Your task to perform on an android device: Empty the shopping cart on newegg. Search for razer huntsman on newegg, select the first entry, and add it to the cart. Image 0: 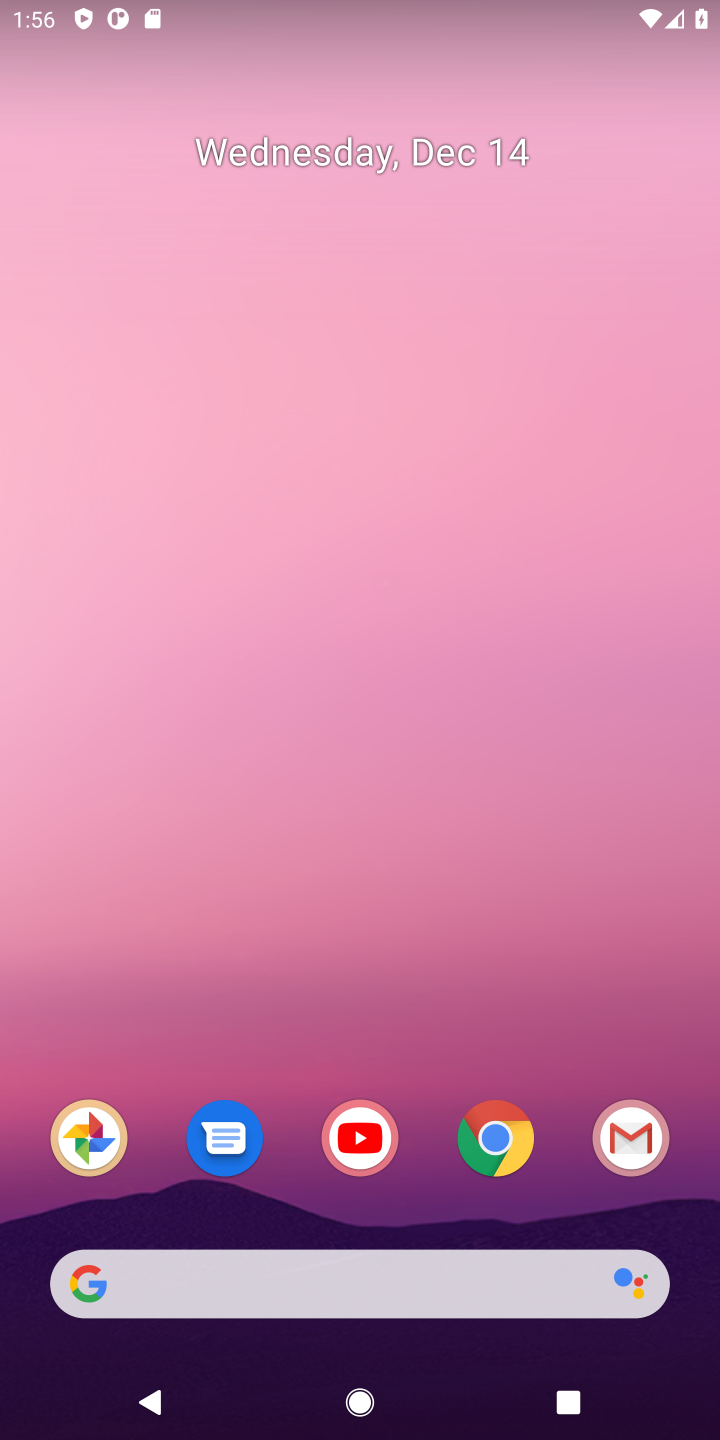
Step 0: click (493, 1147)
Your task to perform on an android device: Empty the shopping cart on newegg. Search for razer huntsman on newegg, select the first entry, and add it to the cart. Image 1: 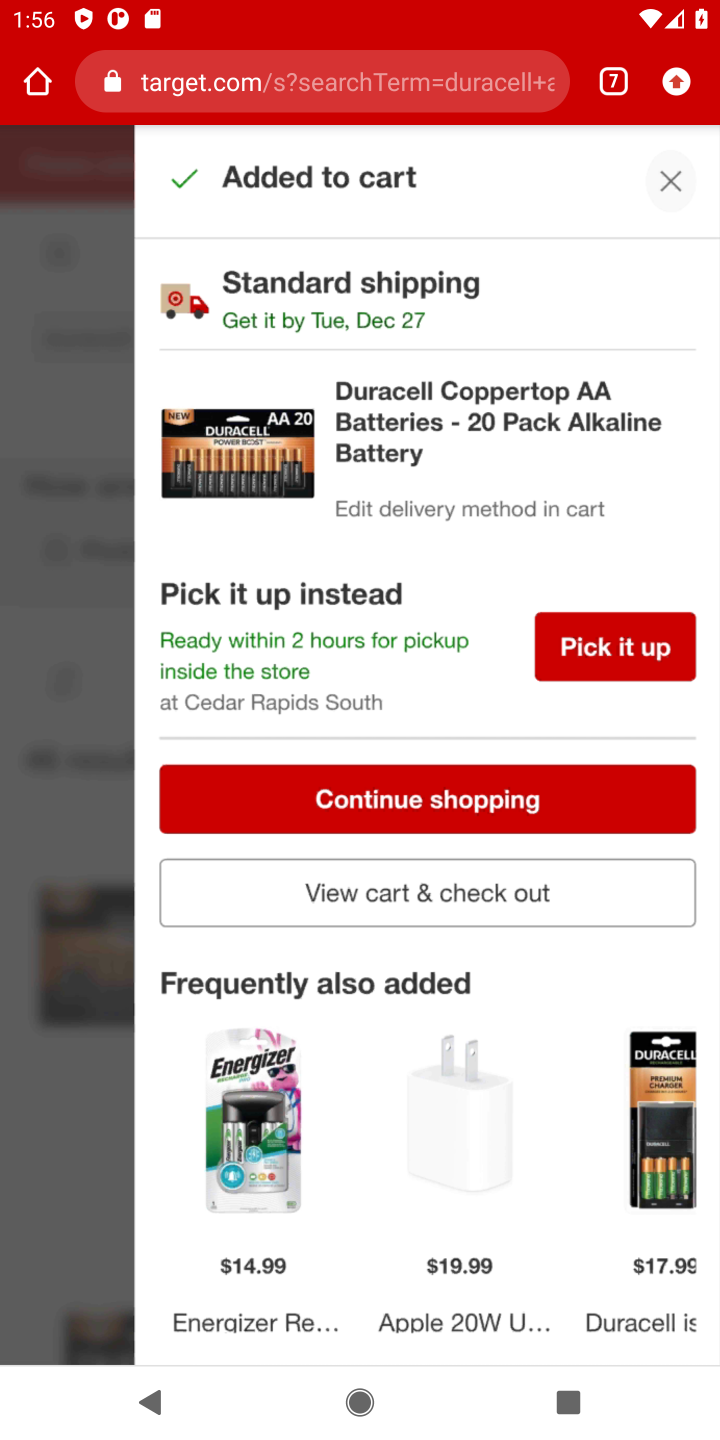
Step 1: click (604, 76)
Your task to perform on an android device: Empty the shopping cart on newegg. Search for razer huntsman on newegg, select the first entry, and add it to the cart. Image 2: 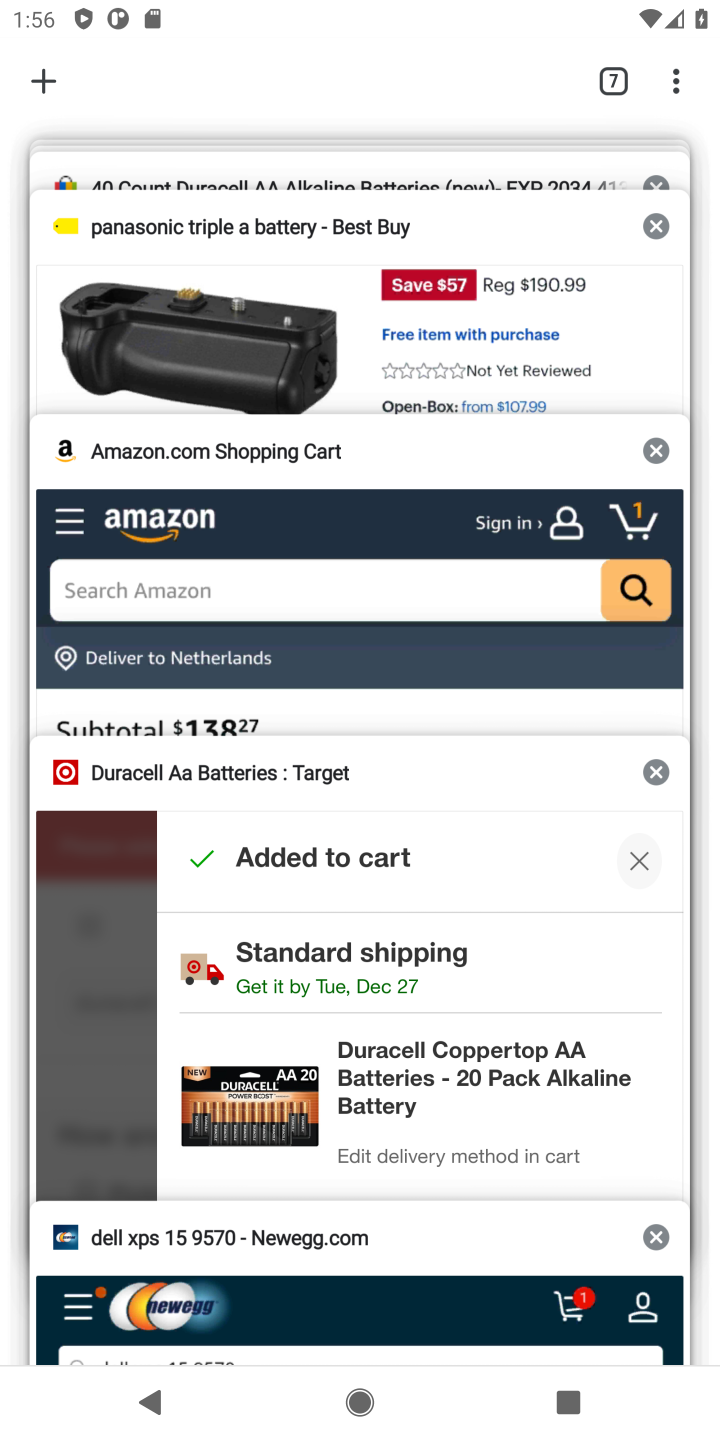
Step 2: drag from (274, 166) to (330, 790)
Your task to perform on an android device: Empty the shopping cart on newegg. Search for razer huntsman on newegg, select the first entry, and add it to the cart. Image 3: 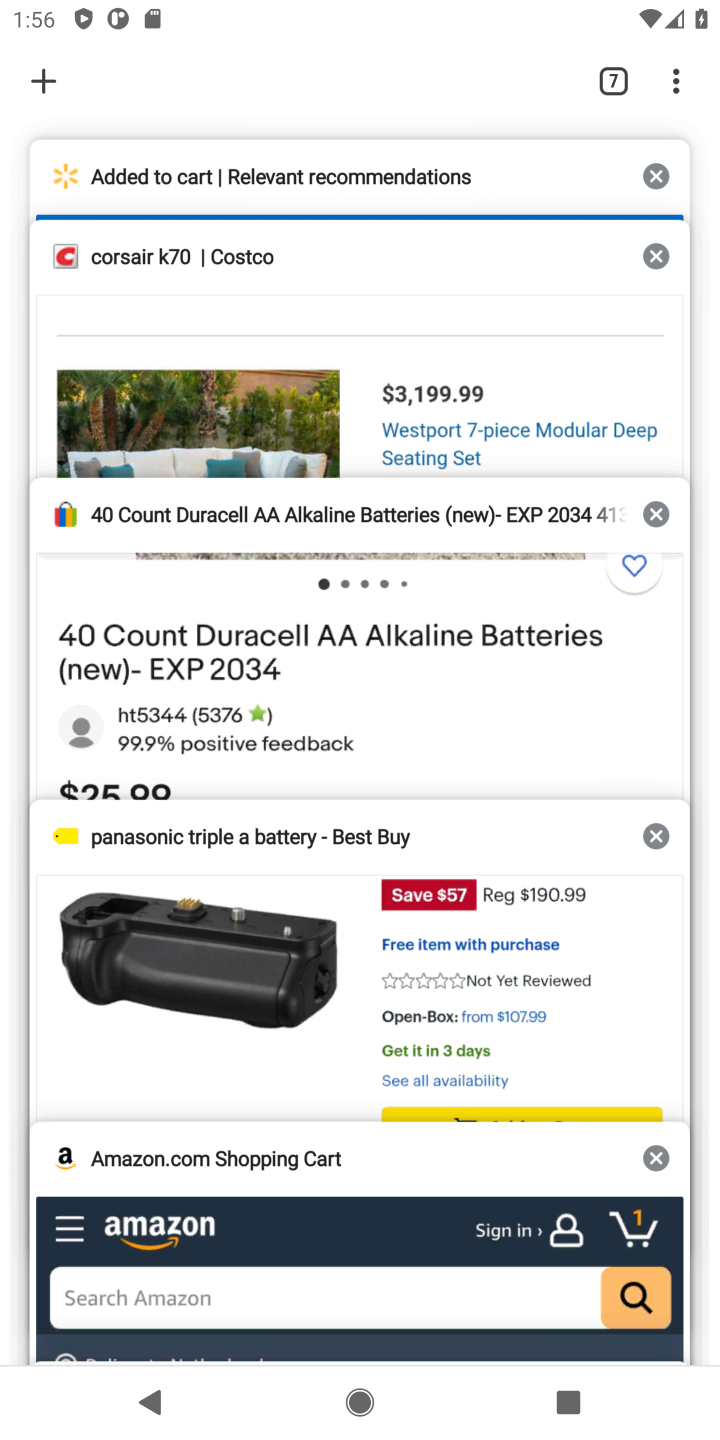
Step 3: drag from (348, 1090) to (384, 573)
Your task to perform on an android device: Empty the shopping cart on newegg. Search for razer huntsman on newegg, select the first entry, and add it to the cart. Image 4: 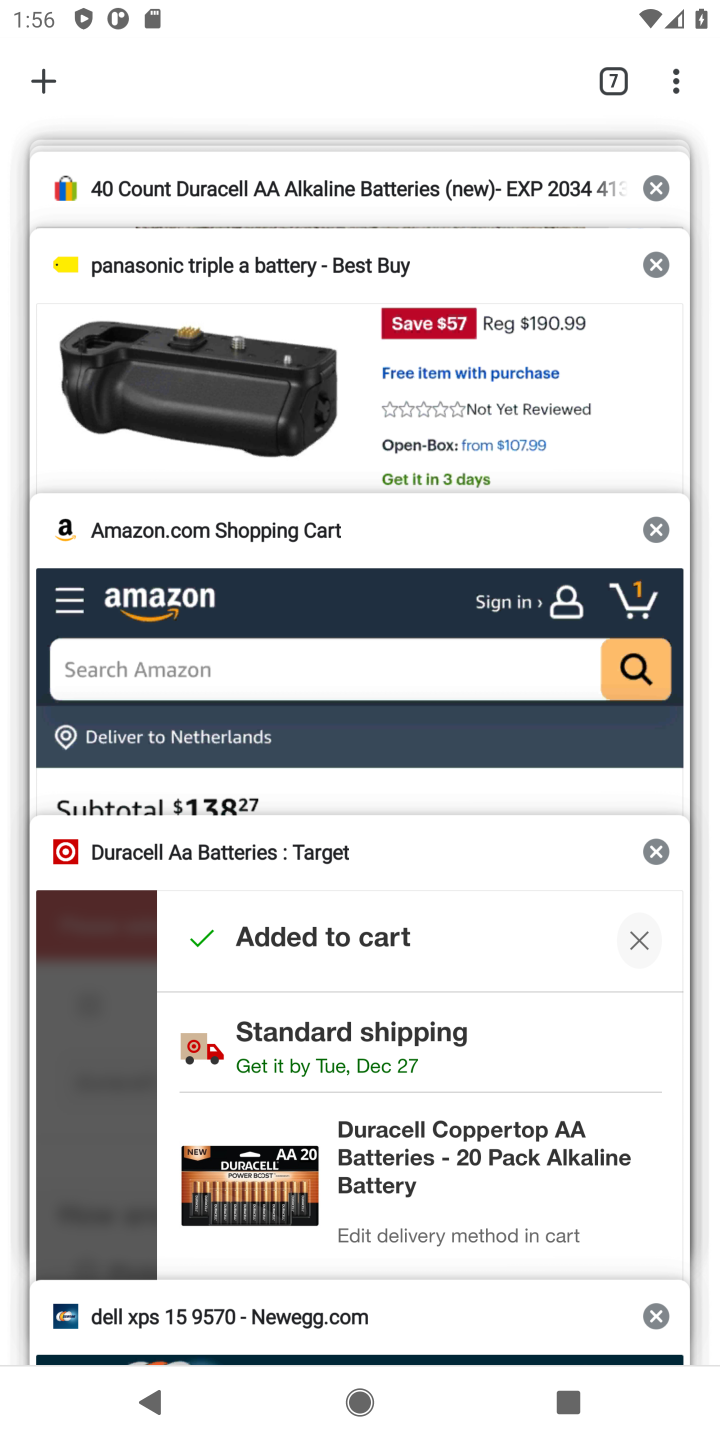
Step 4: click (274, 1331)
Your task to perform on an android device: Empty the shopping cart on newegg. Search for razer huntsman on newegg, select the first entry, and add it to the cart. Image 5: 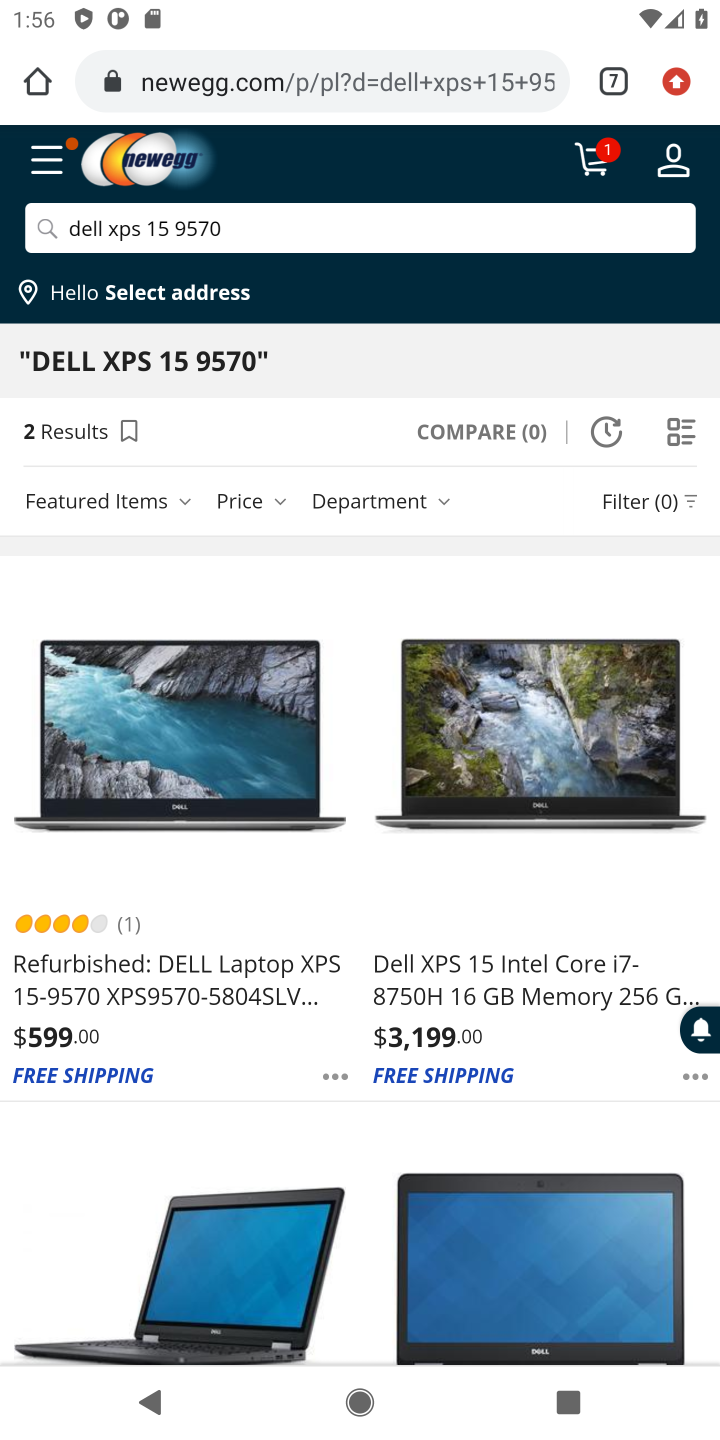
Step 5: click (584, 166)
Your task to perform on an android device: Empty the shopping cart on newegg. Search for razer huntsman on newegg, select the first entry, and add it to the cart. Image 6: 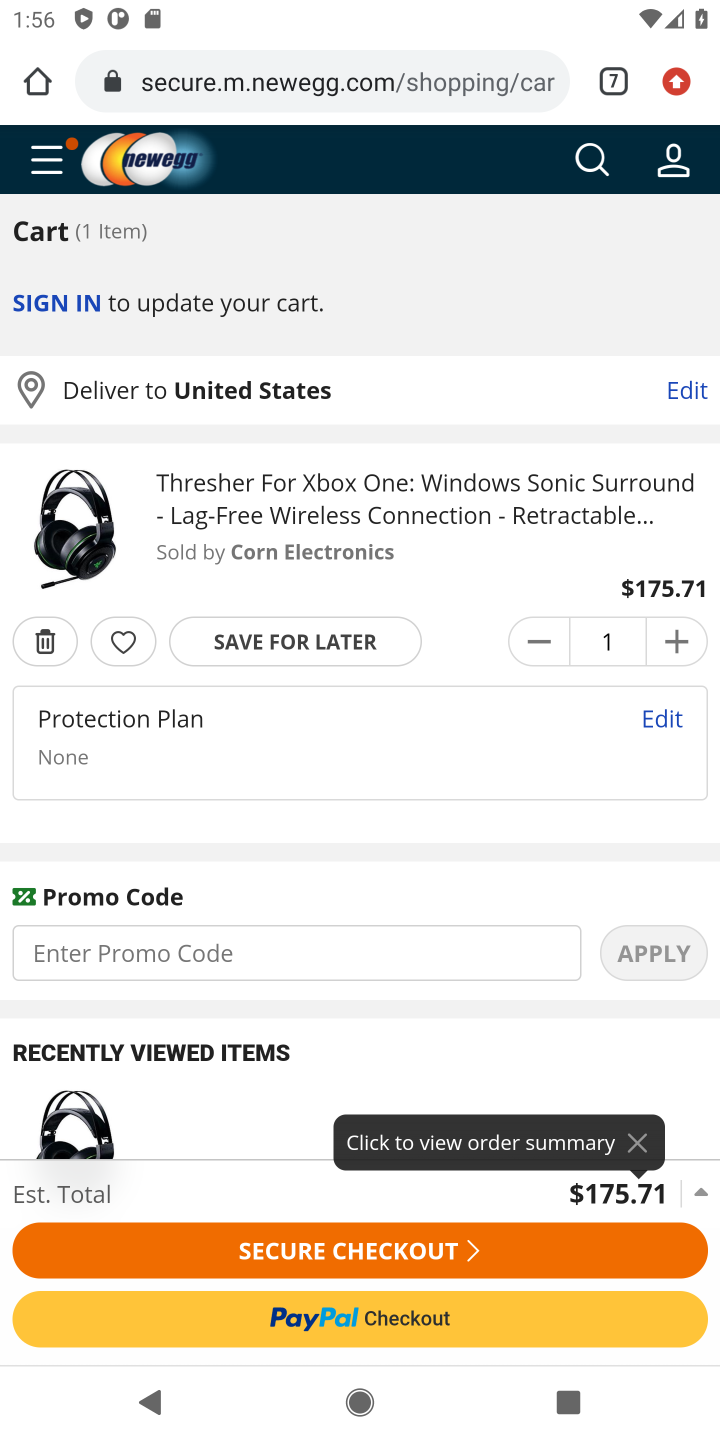
Step 6: click (30, 643)
Your task to perform on an android device: Empty the shopping cart on newegg. Search for razer huntsman on newegg, select the first entry, and add it to the cart. Image 7: 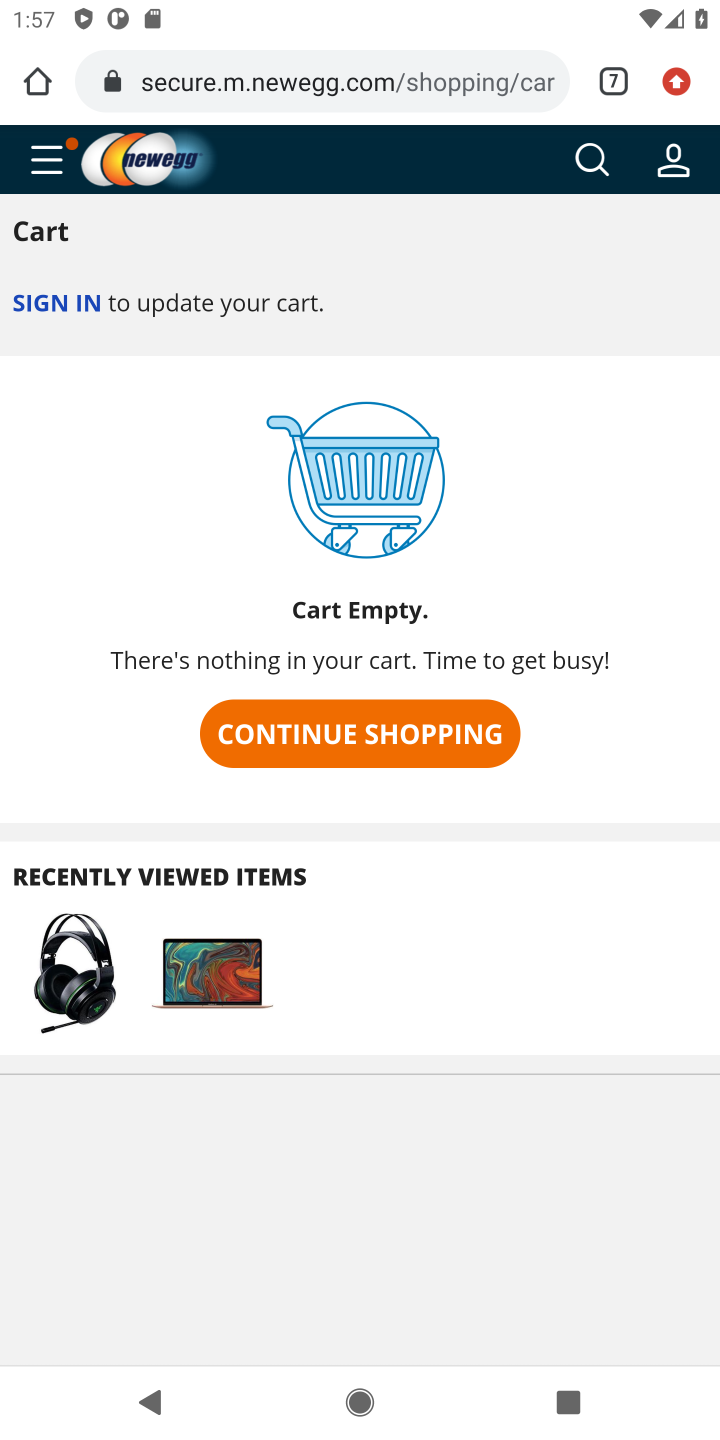
Step 7: click (588, 155)
Your task to perform on an android device: Empty the shopping cart on newegg. Search for razer huntsman on newegg, select the first entry, and add it to the cart. Image 8: 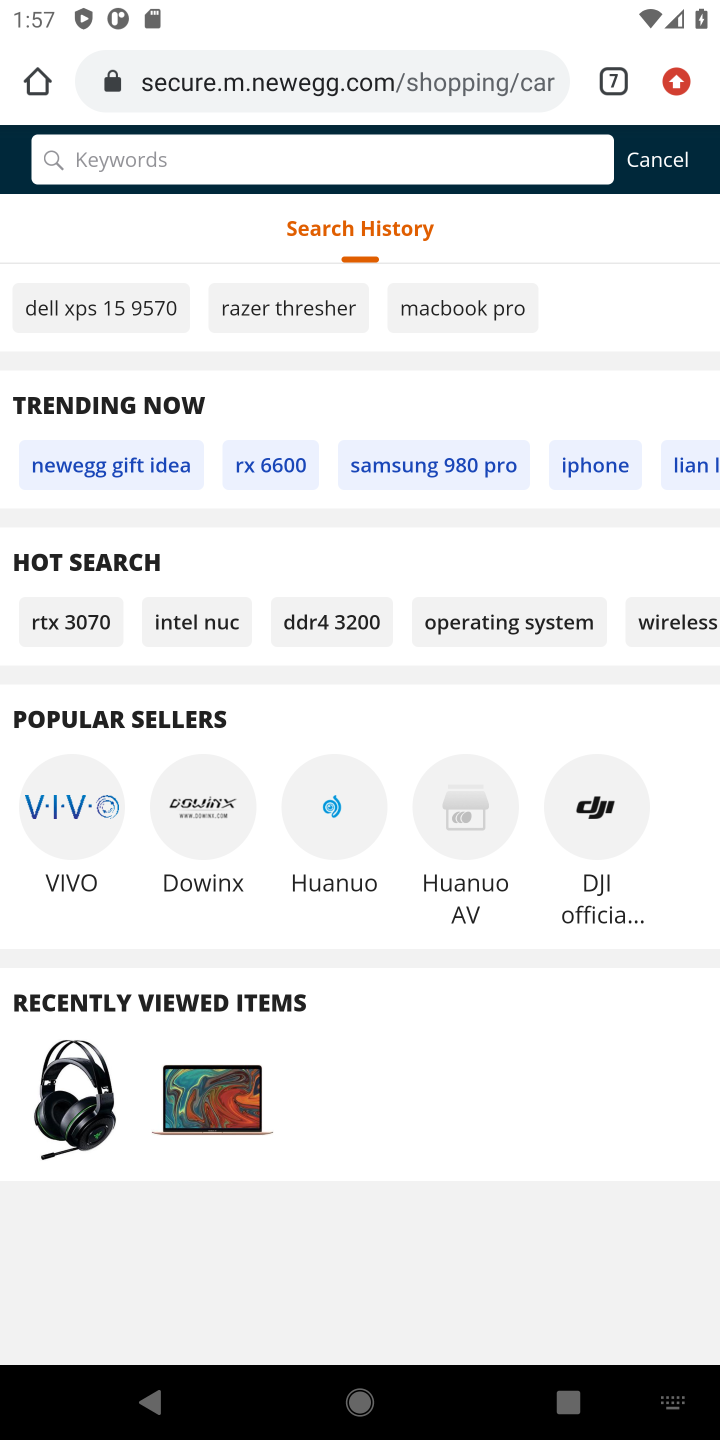
Step 8: type "razer huntsman"
Your task to perform on an android device: Empty the shopping cart on newegg. Search for razer huntsman on newegg, select the first entry, and add it to the cart. Image 9: 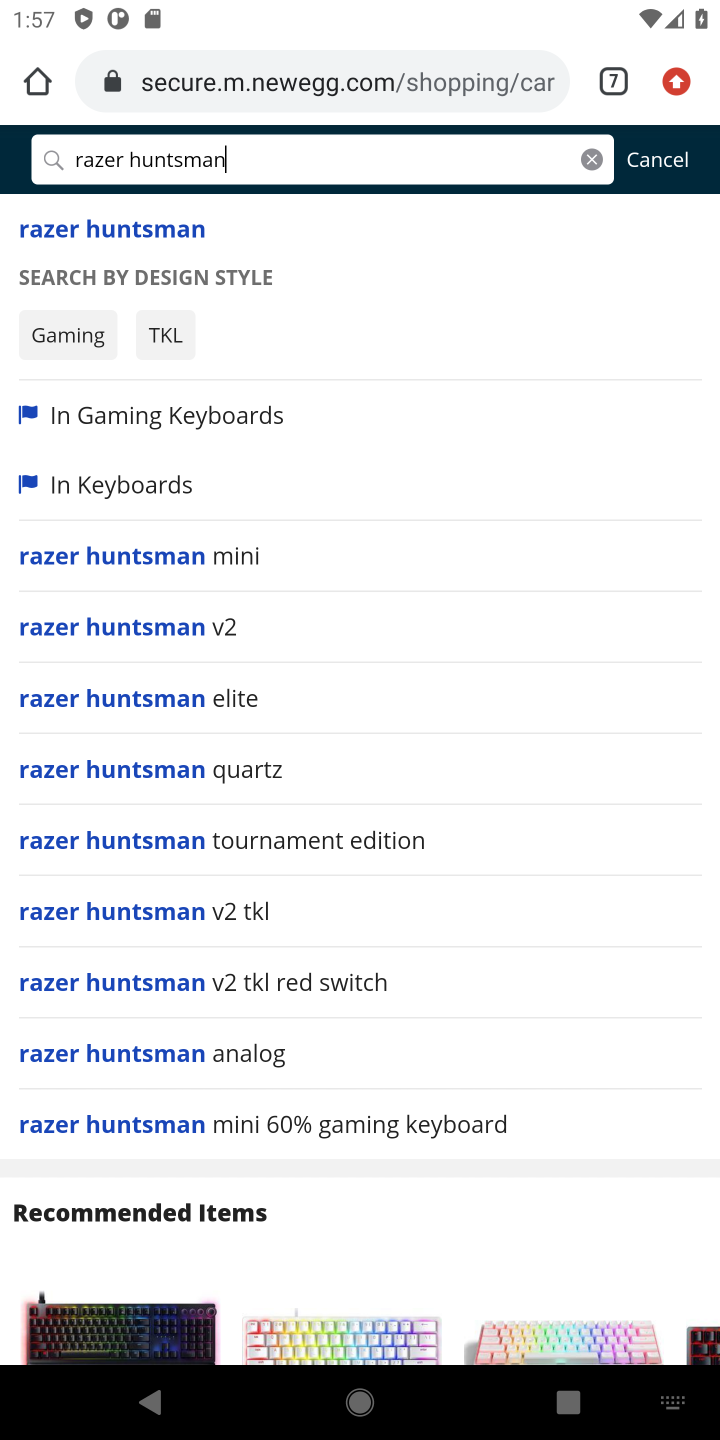
Step 9: click (117, 221)
Your task to perform on an android device: Empty the shopping cart on newegg. Search for razer huntsman on newegg, select the first entry, and add it to the cart. Image 10: 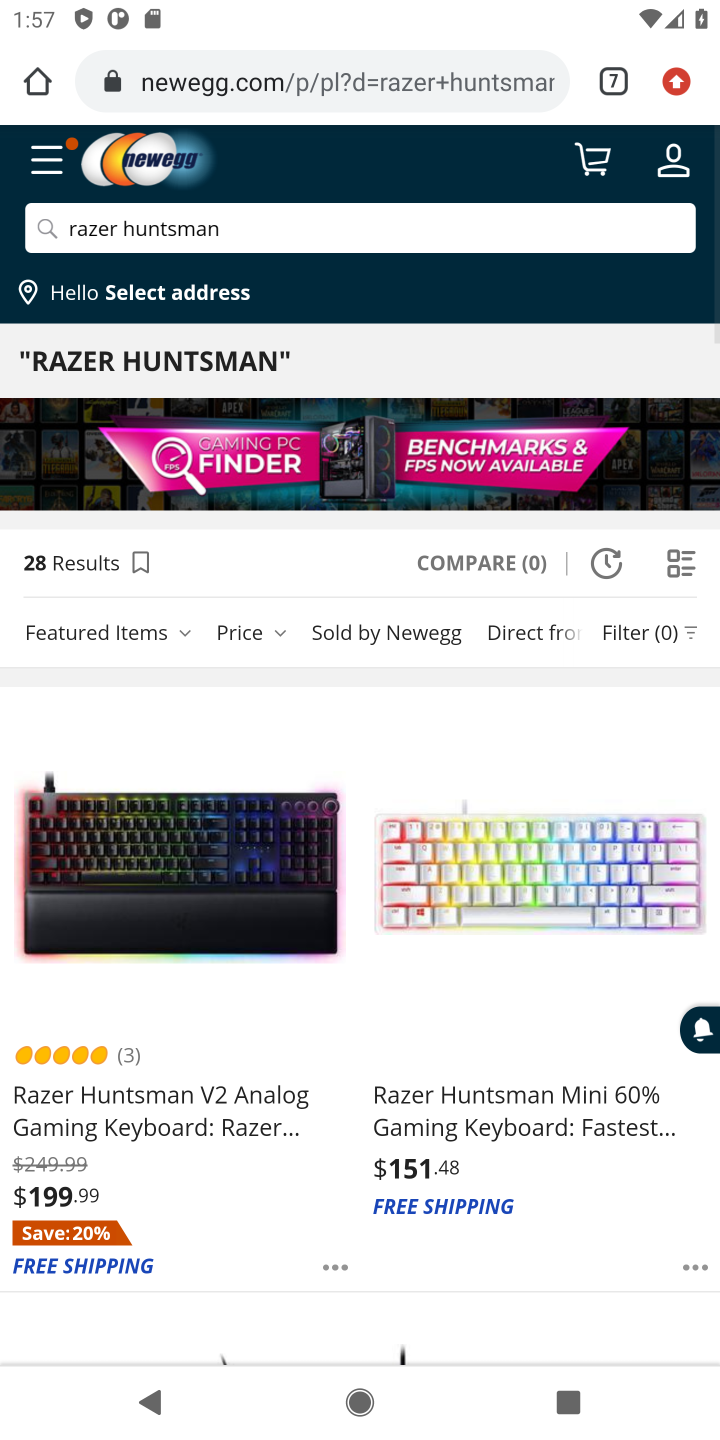
Step 10: click (142, 1096)
Your task to perform on an android device: Empty the shopping cart on newegg. Search for razer huntsman on newegg, select the first entry, and add it to the cart. Image 11: 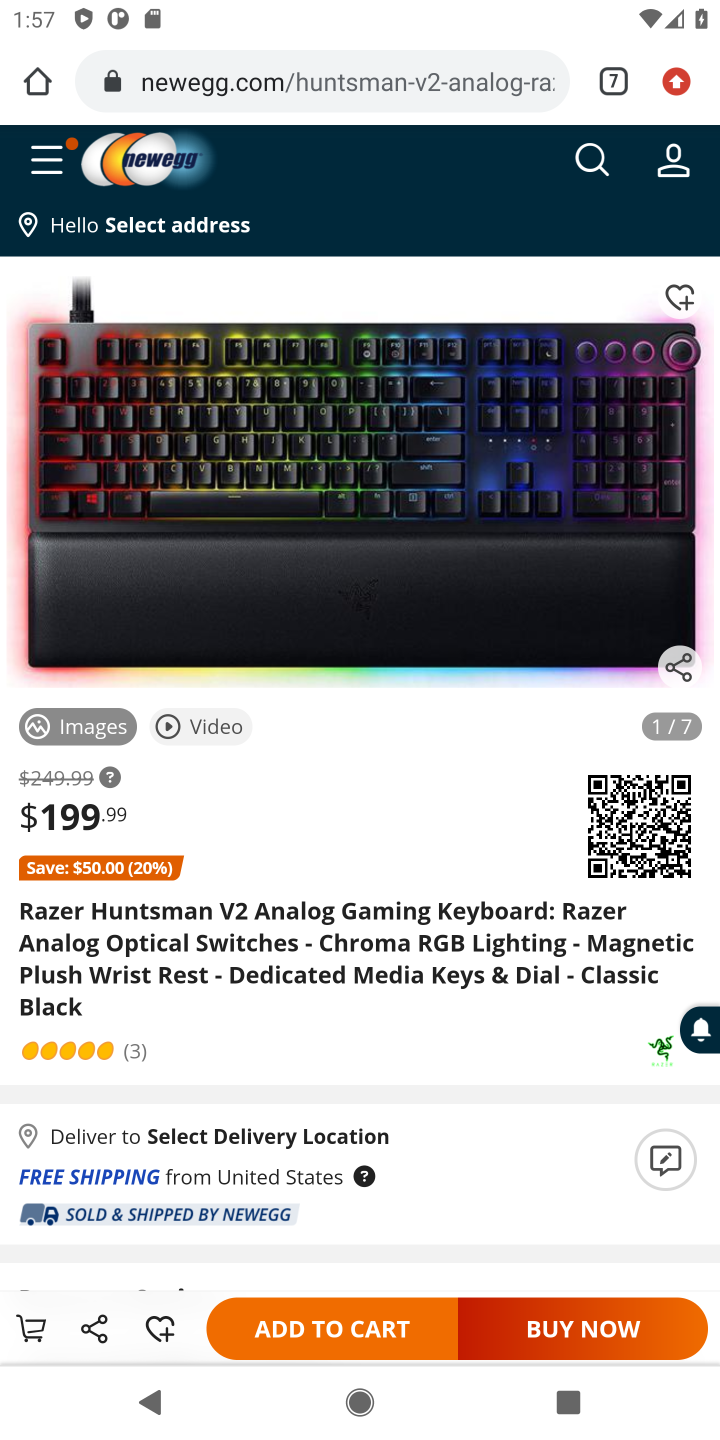
Step 11: click (323, 1336)
Your task to perform on an android device: Empty the shopping cart on newegg. Search for razer huntsman on newegg, select the first entry, and add it to the cart. Image 12: 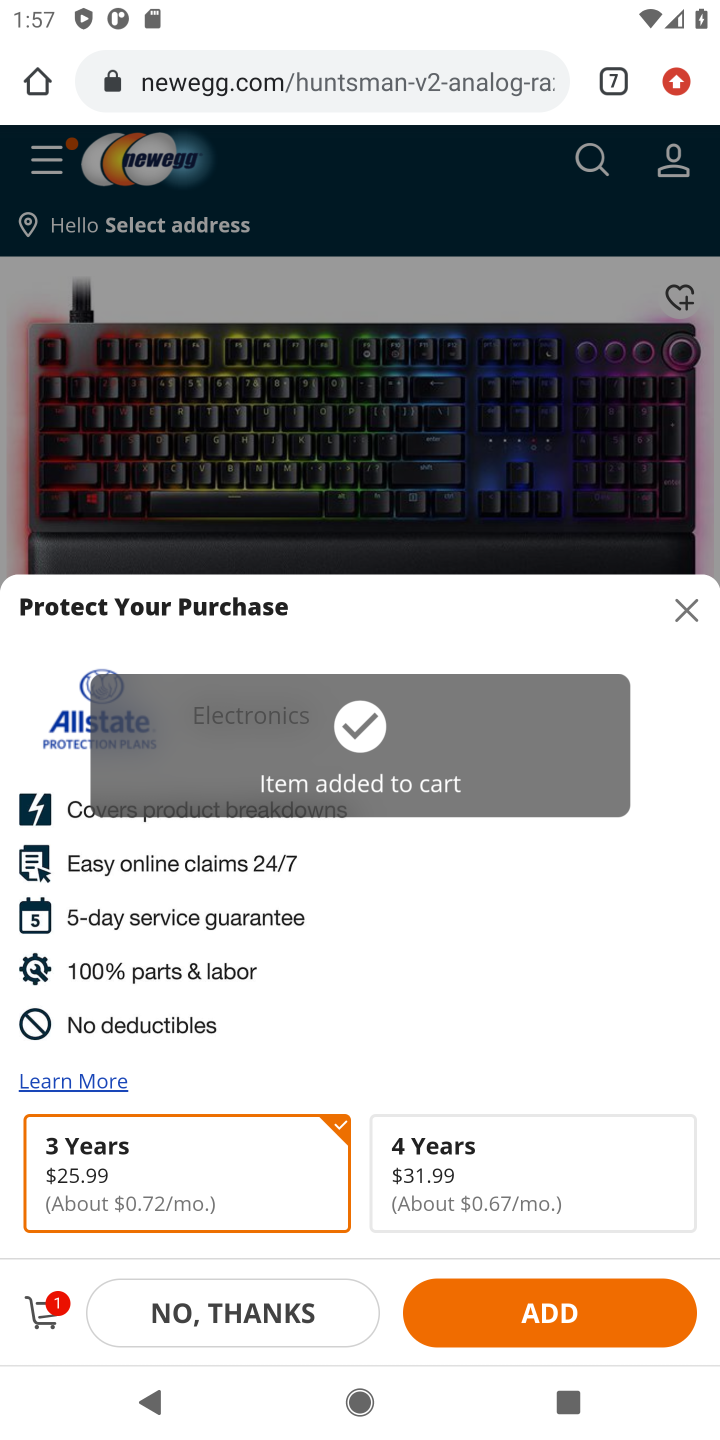
Step 12: task complete